Your task to perform on an android device: choose inbox layout in the gmail app Image 0: 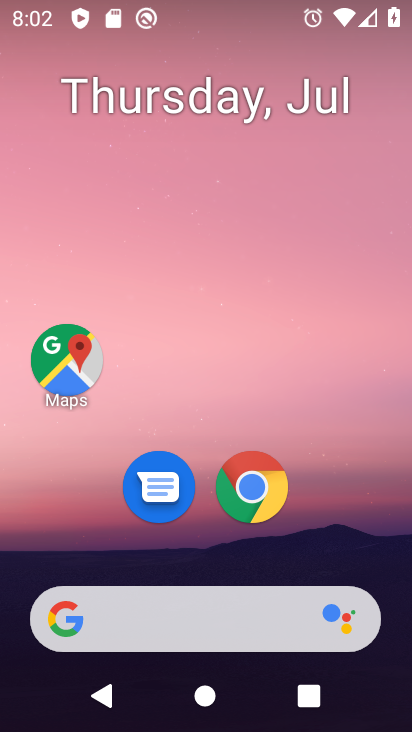
Step 0: drag from (241, 607) to (313, 239)
Your task to perform on an android device: choose inbox layout in the gmail app Image 1: 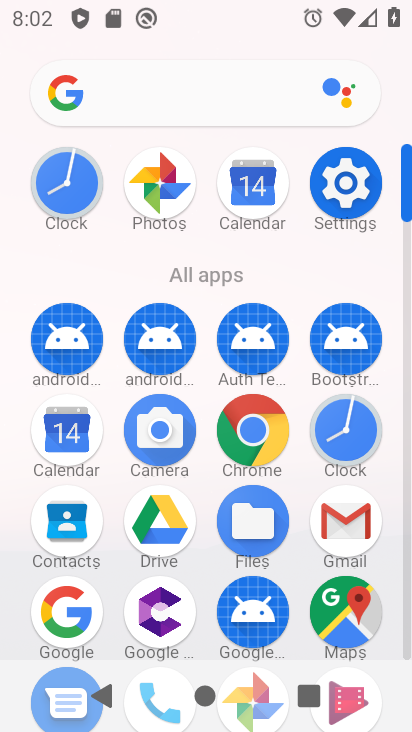
Step 1: click (336, 531)
Your task to perform on an android device: choose inbox layout in the gmail app Image 2: 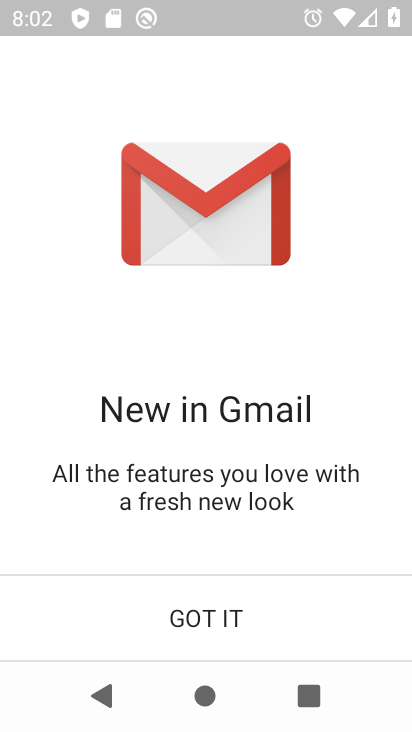
Step 2: click (257, 615)
Your task to perform on an android device: choose inbox layout in the gmail app Image 3: 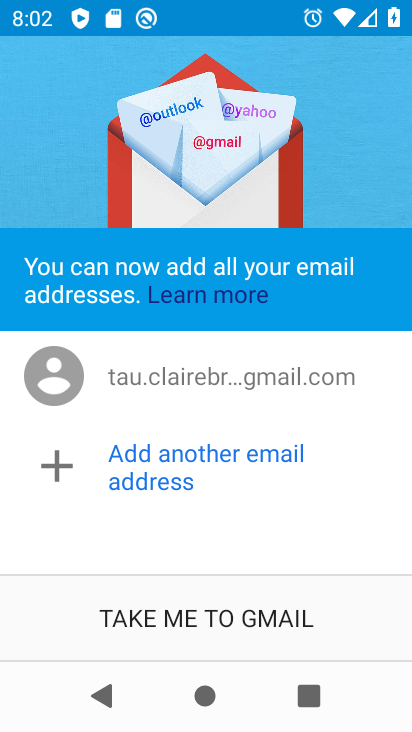
Step 3: click (239, 622)
Your task to perform on an android device: choose inbox layout in the gmail app Image 4: 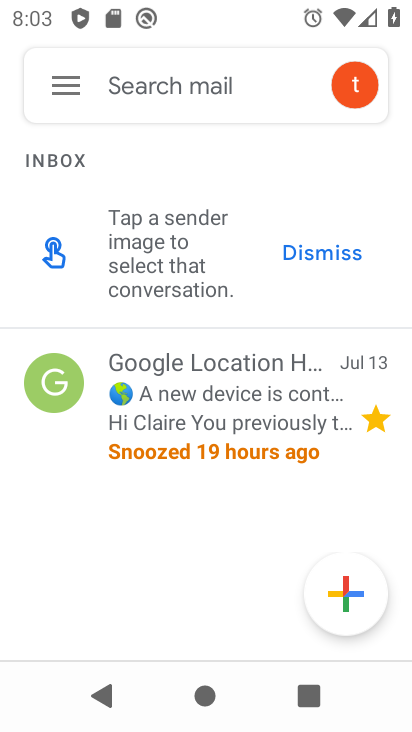
Step 4: click (69, 81)
Your task to perform on an android device: choose inbox layout in the gmail app Image 5: 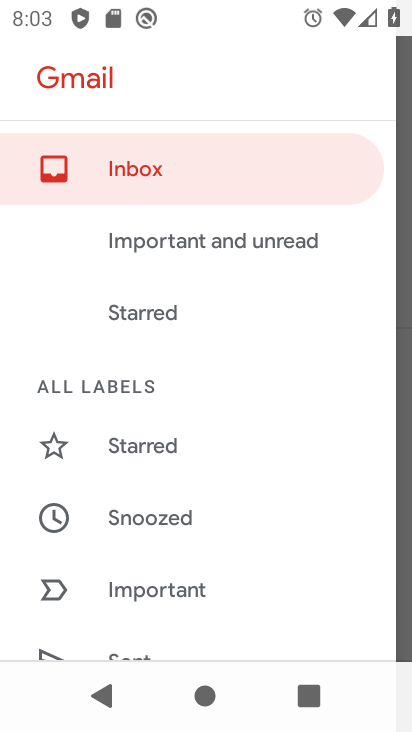
Step 5: task complete